Your task to perform on an android device: turn on airplane mode Image 0: 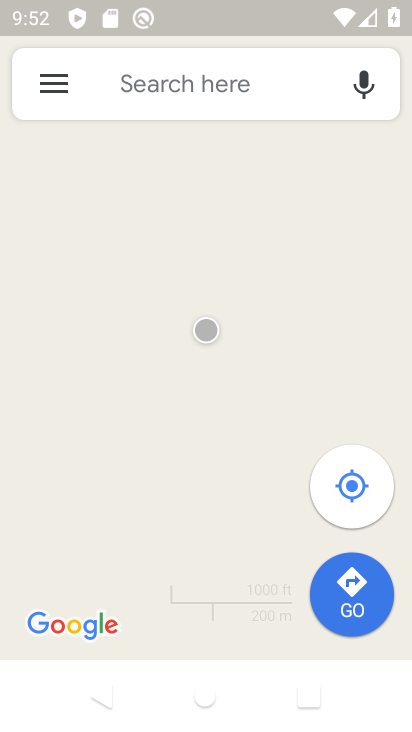
Step 0: press home button
Your task to perform on an android device: turn on airplane mode Image 1: 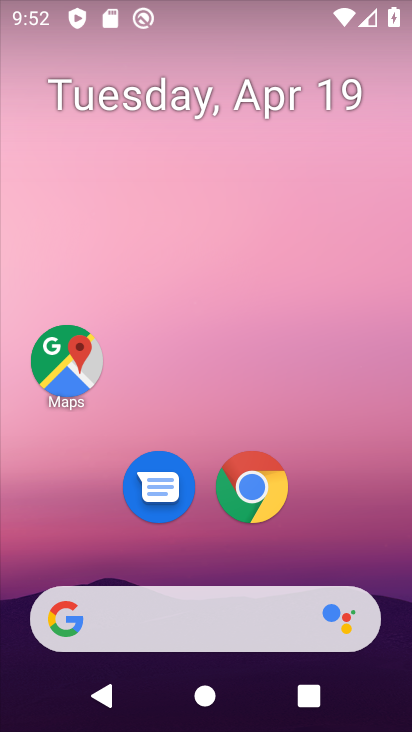
Step 1: drag from (298, 444) to (289, 4)
Your task to perform on an android device: turn on airplane mode Image 2: 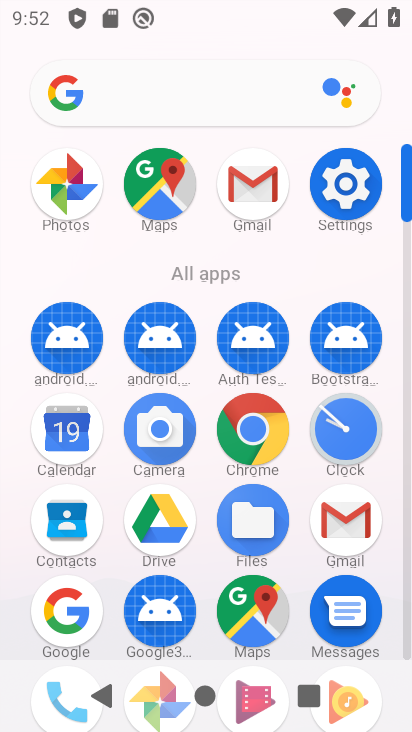
Step 2: click (349, 178)
Your task to perform on an android device: turn on airplane mode Image 3: 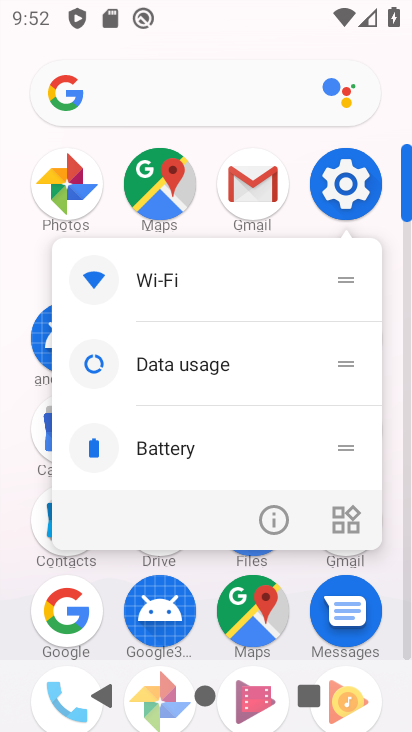
Step 3: click (352, 172)
Your task to perform on an android device: turn on airplane mode Image 4: 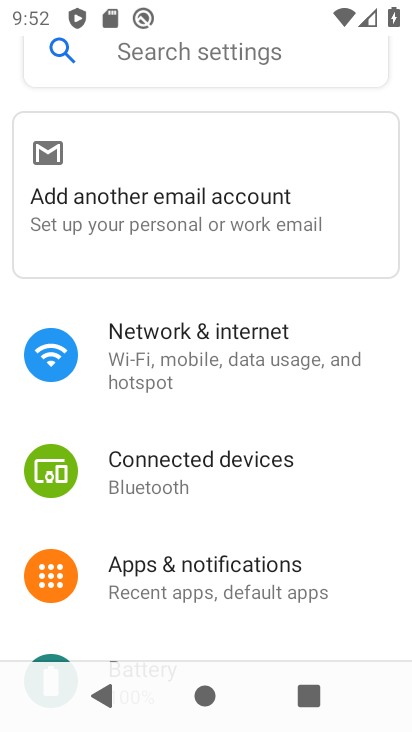
Step 4: click (151, 346)
Your task to perform on an android device: turn on airplane mode Image 5: 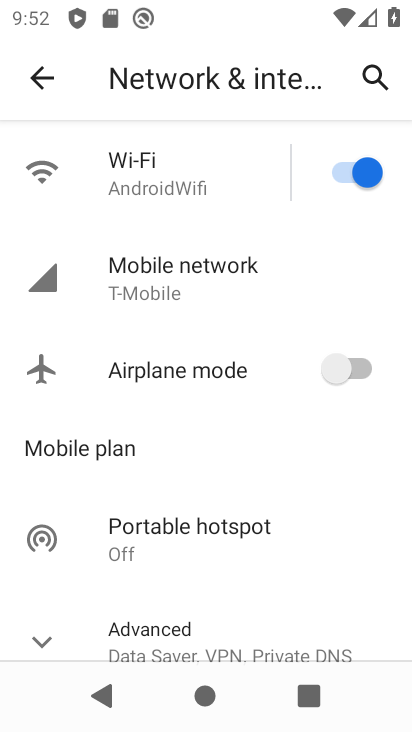
Step 5: click (331, 370)
Your task to perform on an android device: turn on airplane mode Image 6: 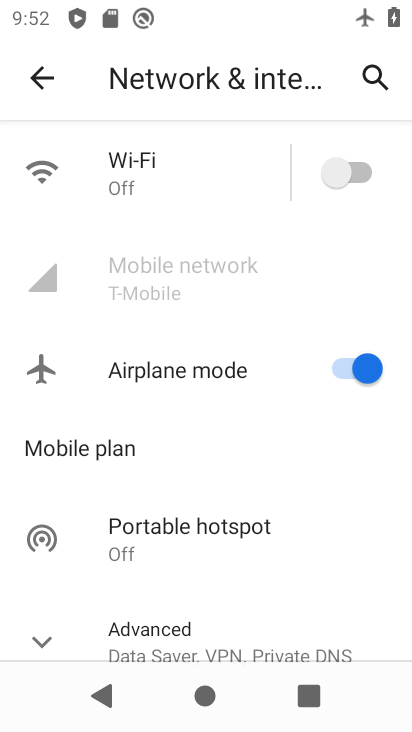
Step 6: task complete